Your task to perform on an android device: Open the phone app and click the voicemail tab. Image 0: 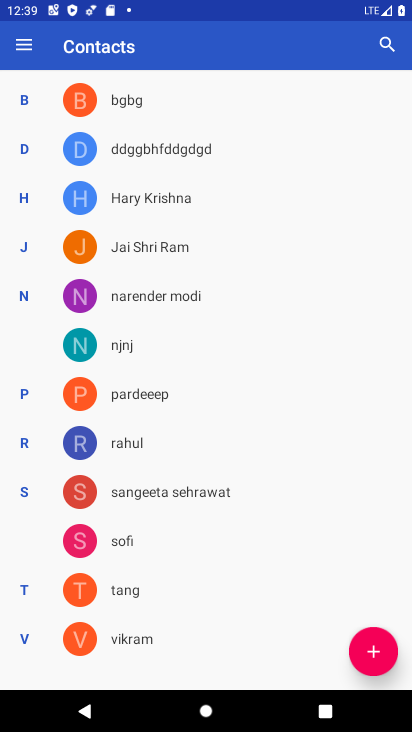
Step 0: press home button
Your task to perform on an android device: Open the phone app and click the voicemail tab. Image 1: 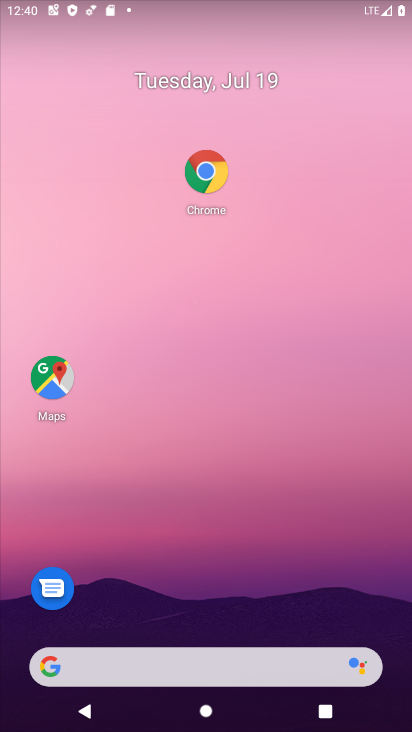
Step 1: drag from (152, 612) to (118, 69)
Your task to perform on an android device: Open the phone app and click the voicemail tab. Image 2: 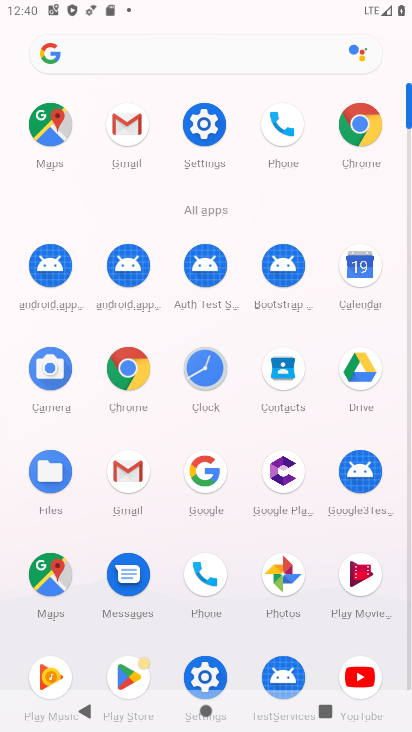
Step 2: click (302, 159)
Your task to perform on an android device: Open the phone app and click the voicemail tab. Image 3: 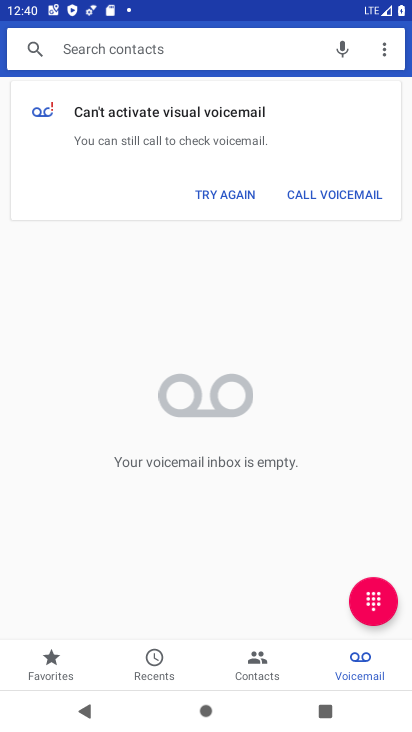
Step 3: task complete